Your task to perform on an android device: turn off airplane mode Image 0: 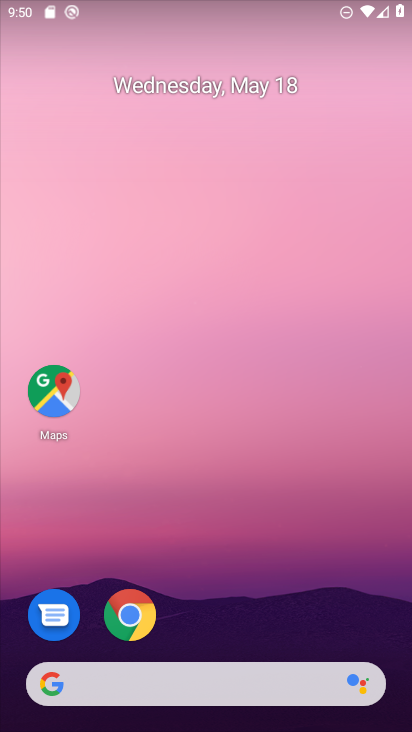
Step 0: drag from (254, 615) to (318, 23)
Your task to perform on an android device: turn off airplane mode Image 1: 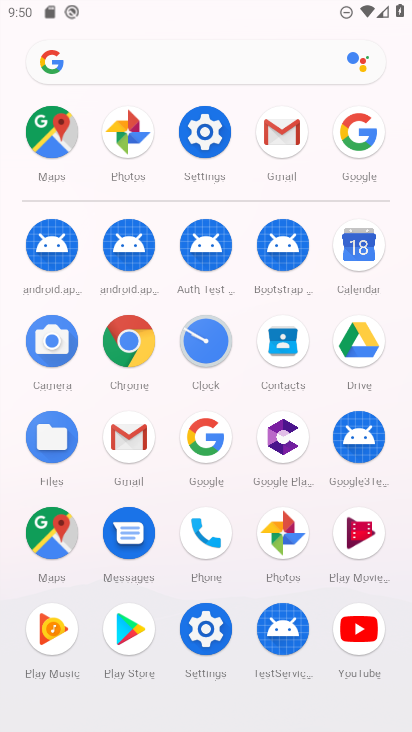
Step 1: click (206, 126)
Your task to perform on an android device: turn off airplane mode Image 2: 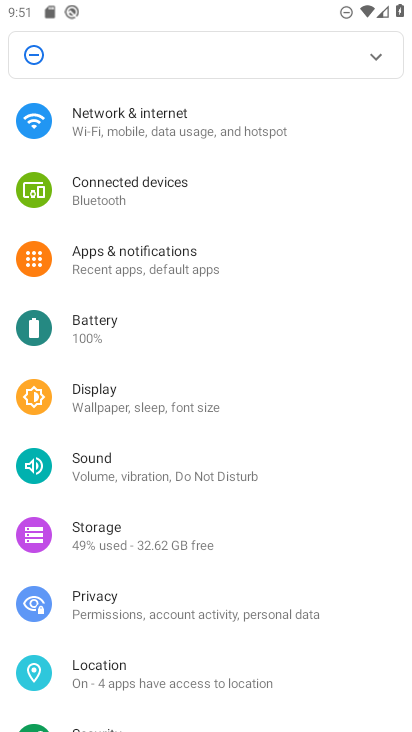
Step 2: click (170, 132)
Your task to perform on an android device: turn off airplane mode Image 3: 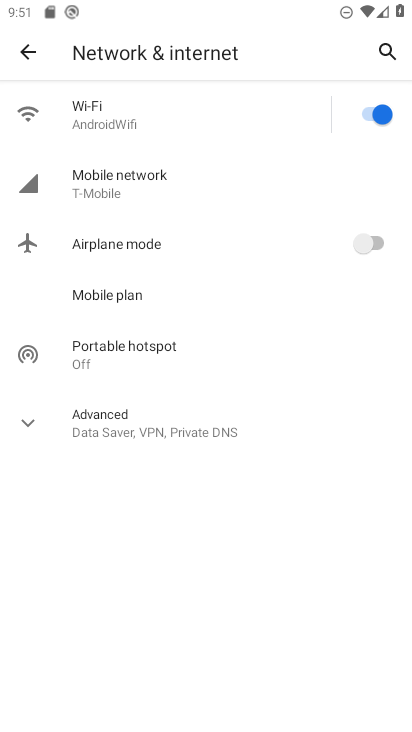
Step 3: task complete